Your task to perform on an android device: turn notification dots off Image 0: 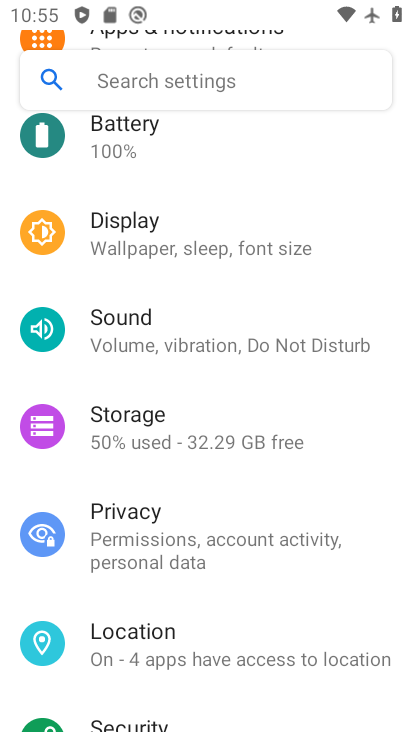
Step 0: drag from (252, 142) to (287, 559)
Your task to perform on an android device: turn notification dots off Image 1: 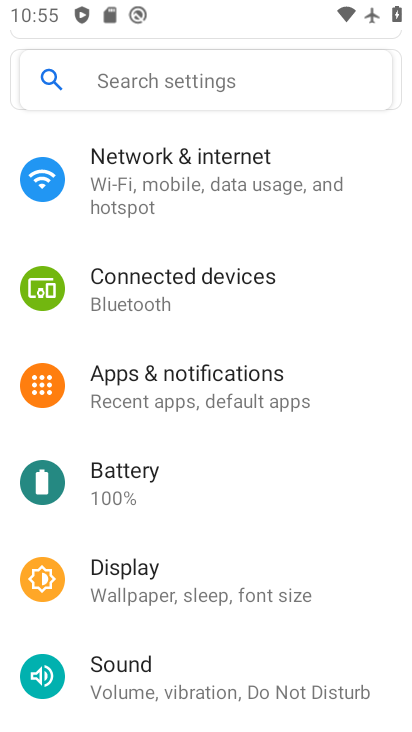
Step 1: click (231, 380)
Your task to perform on an android device: turn notification dots off Image 2: 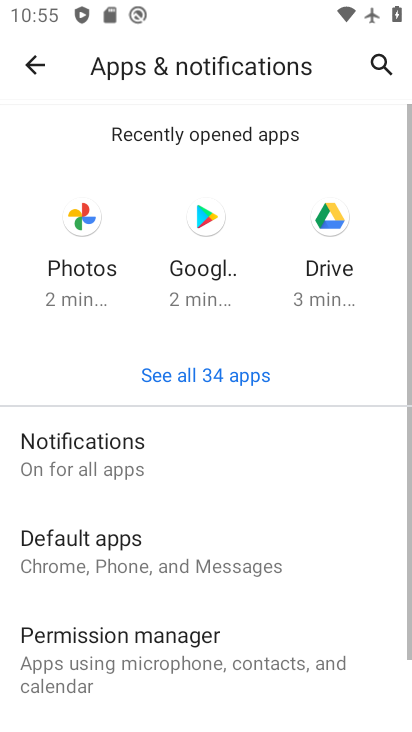
Step 2: drag from (238, 590) to (238, 155)
Your task to perform on an android device: turn notification dots off Image 3: 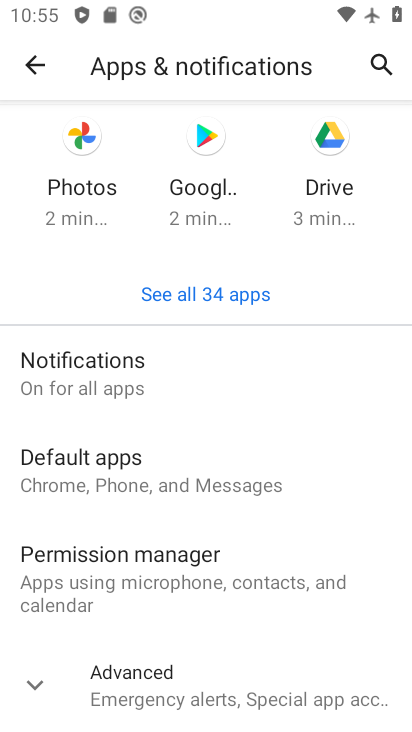
Step 3: click (130, 672)
Your task to perform on an android device: turn notification dots off Image 4: 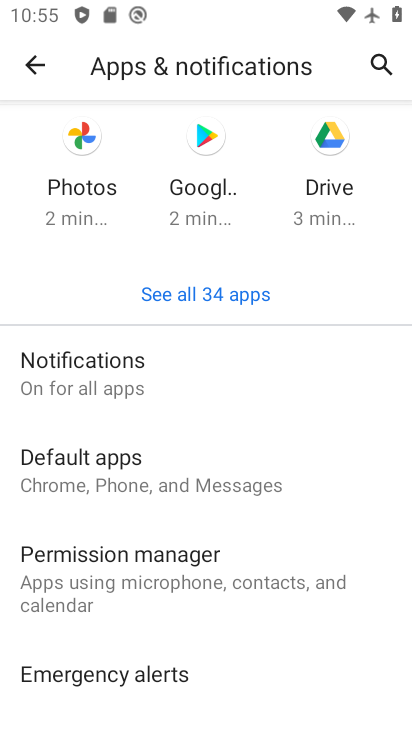
Step 4: click (178, 367)
Your task to perform on an android device: turn notification dots off Image 5: 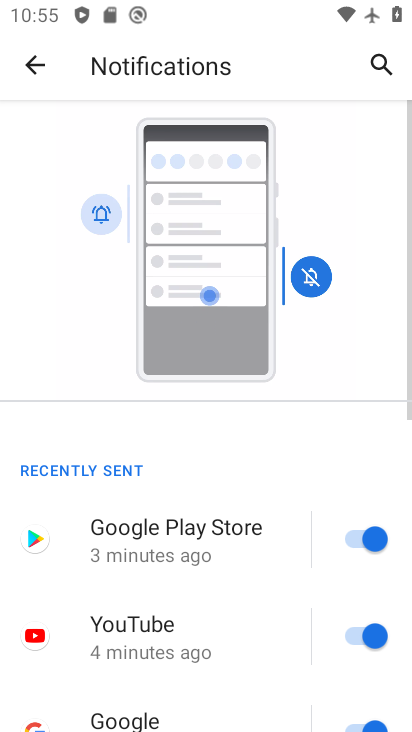
Step 5: drag from (186, 568) to (249, 66)
Your task to perform on an android device: turn notification dots off Image 6: 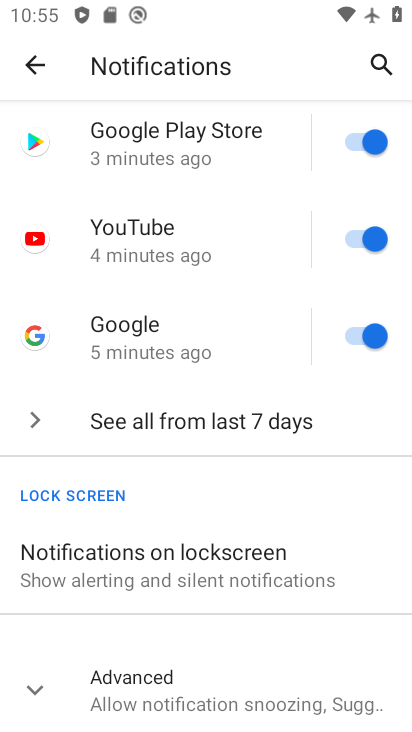
Step 6: drag from (205, 516) to (195, 160)
Your task to perform on an android device: turn notification dots off Image 7: 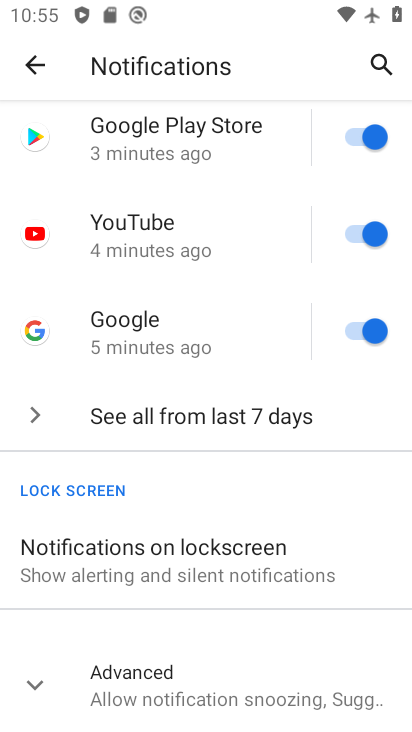
Step 7: click (92, 678)
Your task to perform on an android device: turn notification dots off Image 8: 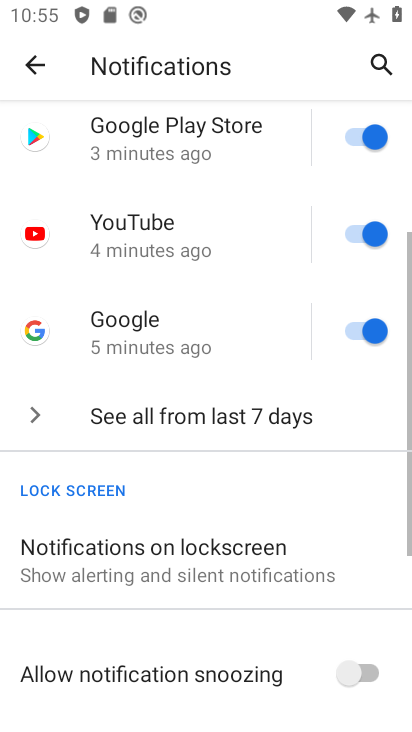
Step 8: drag from (174, 639) to (193, 262)
Your task to perform on an android device: turn notification dots off Image 9: 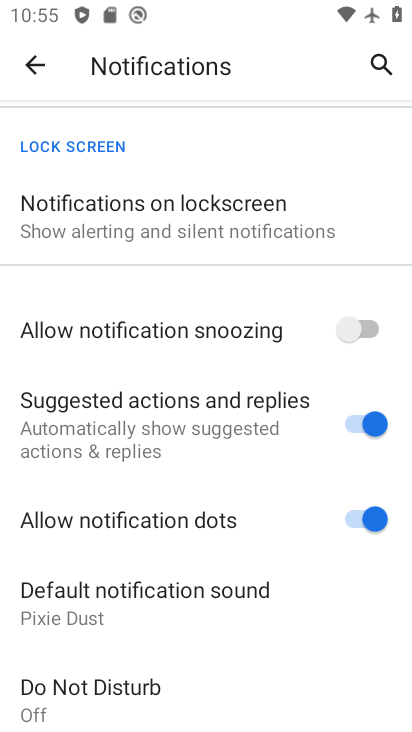
Step 9: click (362, 516)
Your task to perform on an android device: turn notification dots off Image 10: 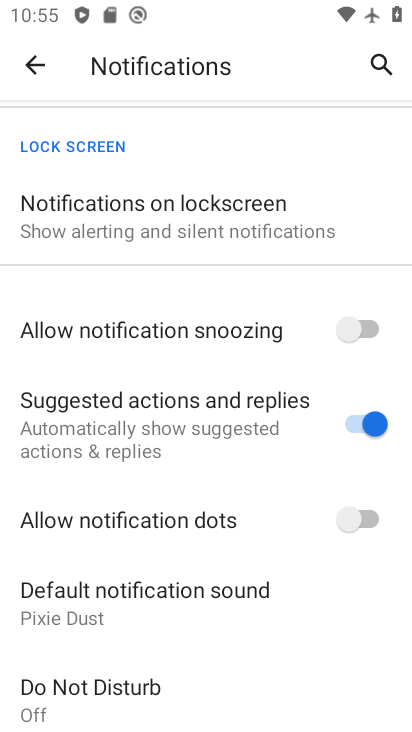
Step 10: task complete